Your task to perform on an android device: Open the phone app and click the voicemail tab. Image 0: 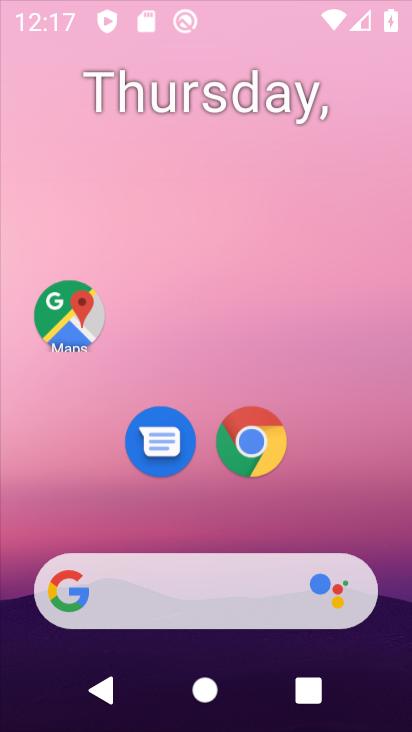
Step 0: click (321, 121)
Your task to perform on an android device: Open the phone app and click the voicemail tab. Image 1: 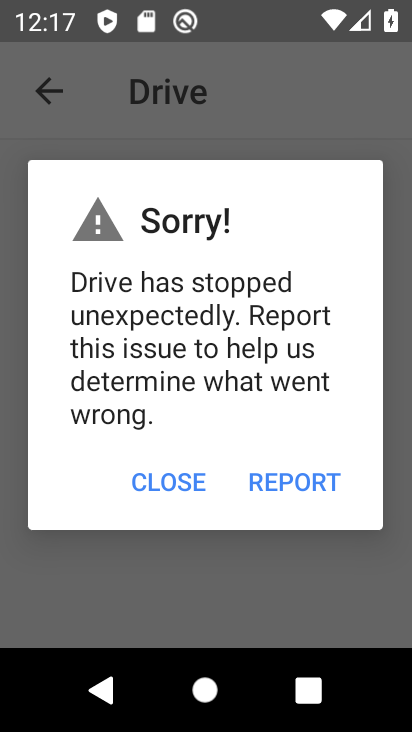
Step 1: press home button
Your task to perform on an android device: Open the phone app and click the voicemail tab. Image 2: 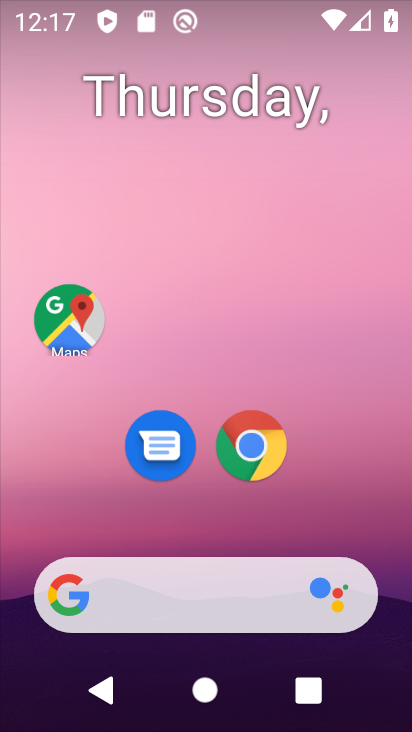
Step 2: drag from (361, 544) to (309, 165)
Your task to perform on an android device: Open the phone app and click the voicemail tab. Image 3: 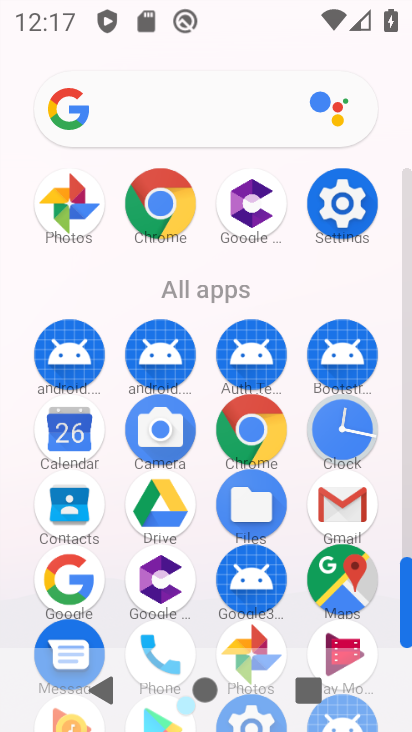
Step 3: drag from (198, 598) to (172, 292)
Your task to perform on an android device: Open the phone app and click the voicemail tab. Image 4: 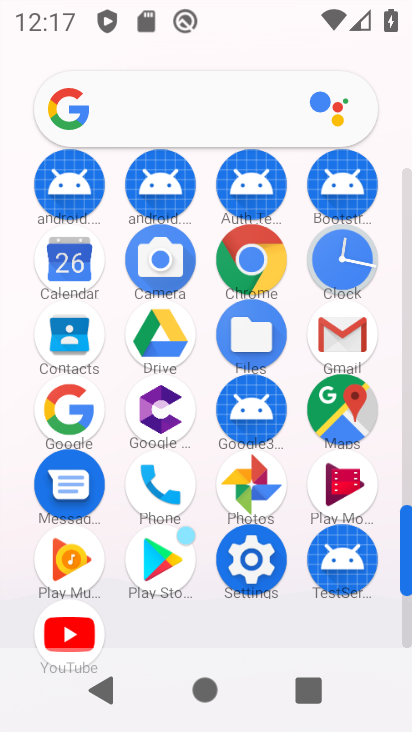
Step 4: click (153, 491)
Your task to perform on an android device: Open the phone app and click the voicemail tab. Image 5: 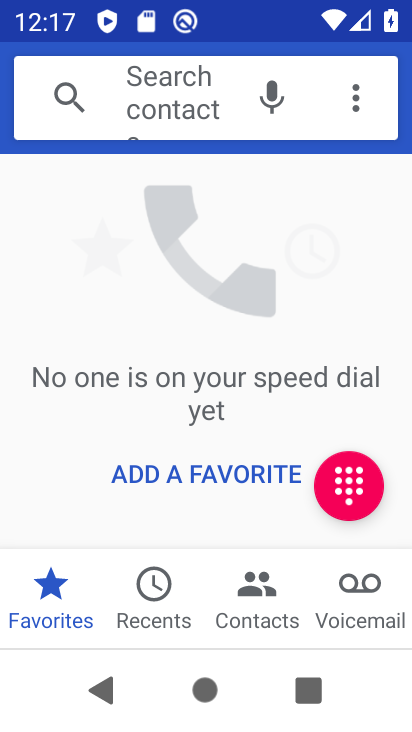
Step 5: click (354, 601)
Your task to perform on an android device: Open the phone app and click the voicemail tab. Image 6: 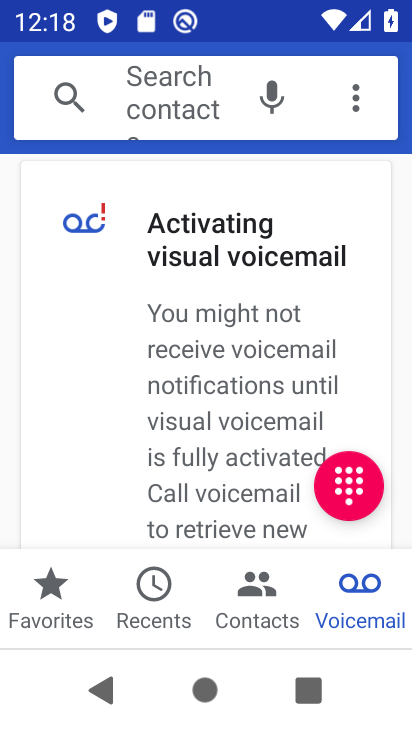
Step 6: task complete